Your task to perform on an android device: Open Yahoo.com Image 0: 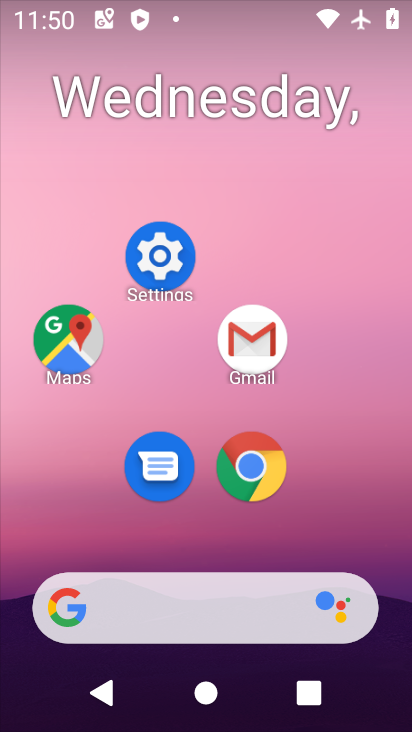
Step 0: drag from (211, 510) to (213, 186)
Your task to perform on an android device: Open Yahoo.com Image 1: 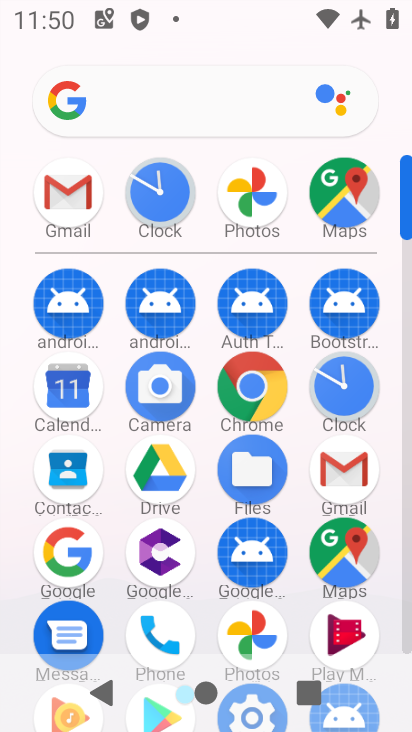
Step 1: click (215, 107)
Your task to perform on an android device: Open Yahoo.com Image 2: 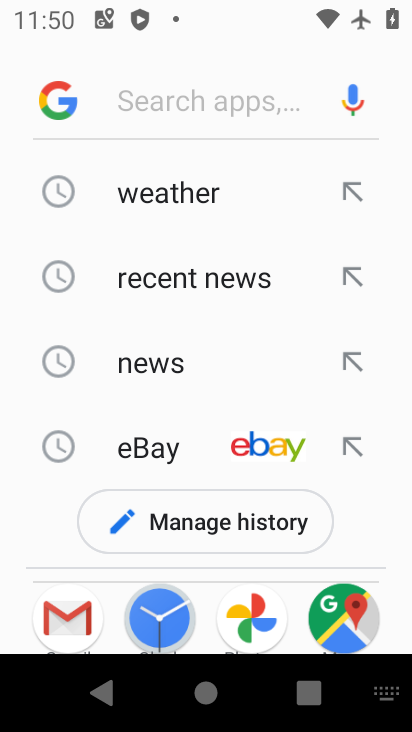
Step 2: type "yahoo"
Your task to perform on an android device: Open Yahoo.com Image 3: 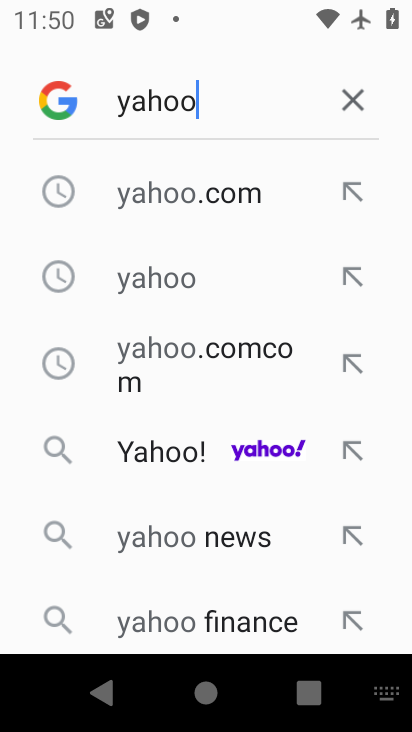
Step 3: click (152, 184)
Your task to perform on an android device: Open Yahoo.com Image 4: 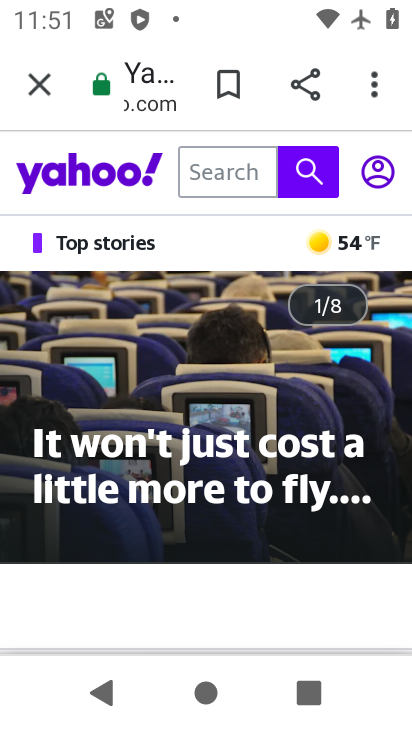
Step 4: task complete